Your task to perform on an android device: Search for a small bookcase on Ikea.com Image 0: 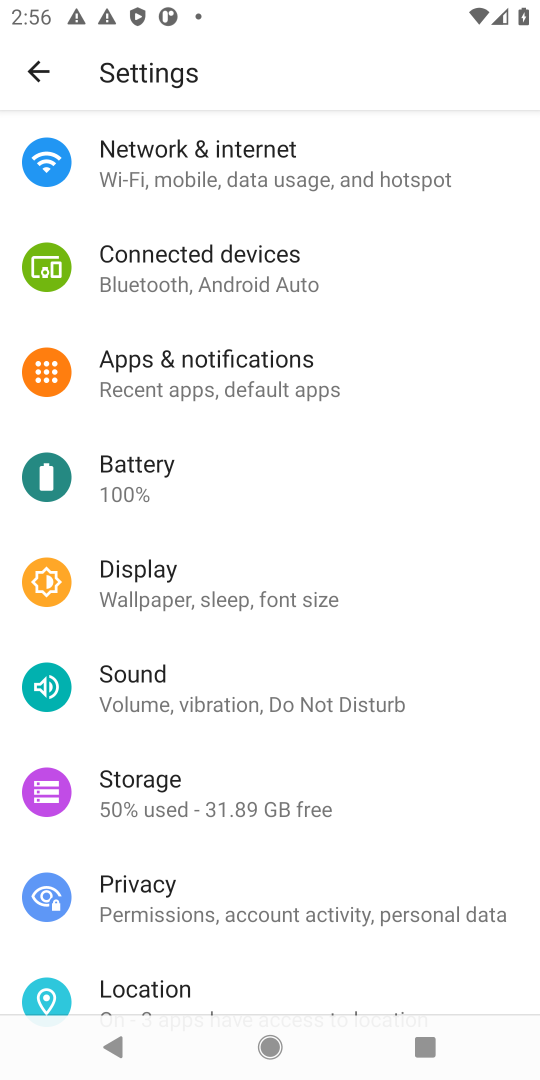
Step 0: press home button
Your task to perform on an android device: Search for a small bookcase on Ikea.com Image 1: 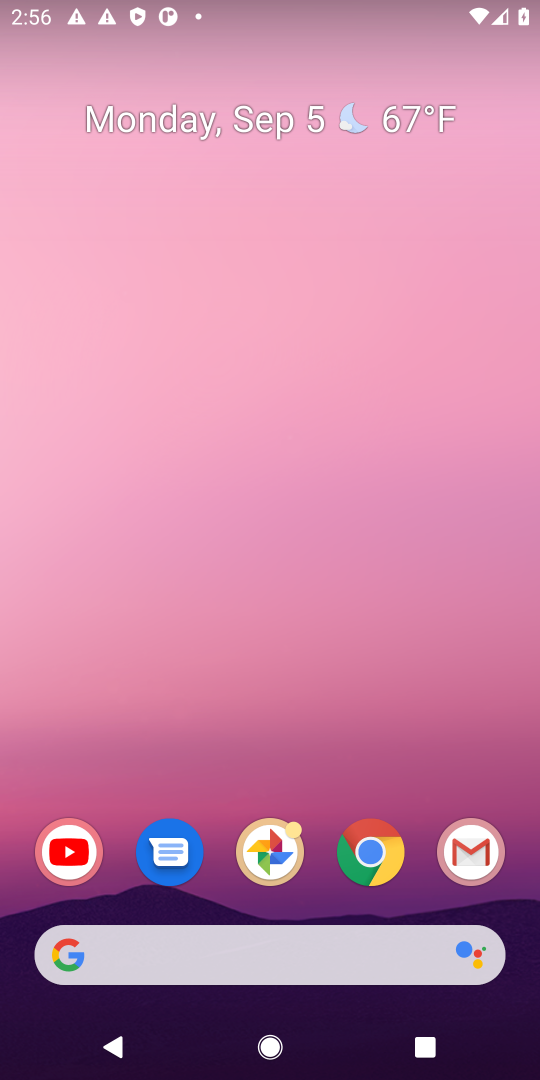
Step 1: click (377, 854)
Your task to perform on an android device: Search for a small bookcase on Ikea.com Image 2: 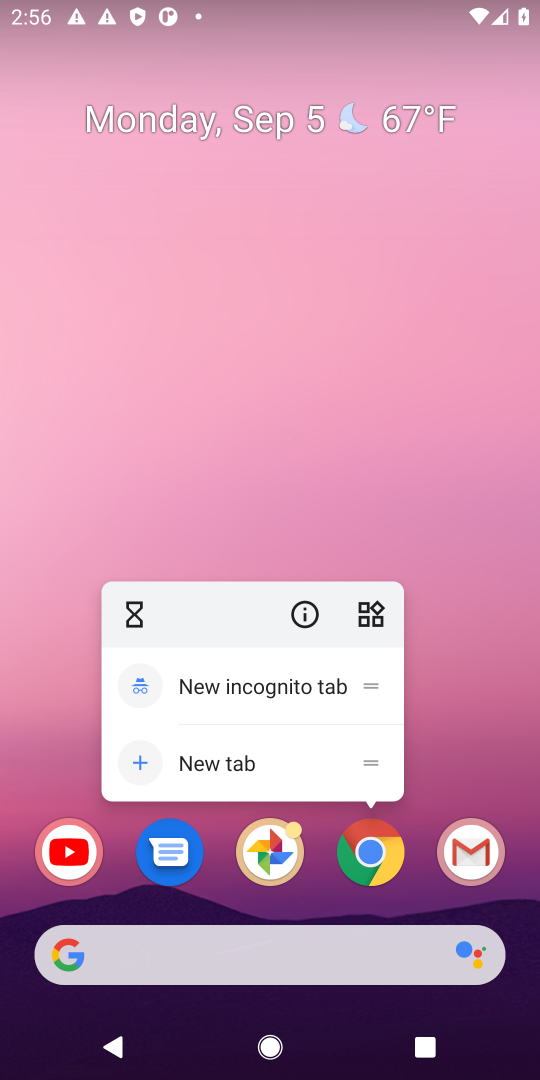
Step 2: click (374, 856)
Your task to perform on an android device: Search for a small bookcase on Ikea.com Image 3: 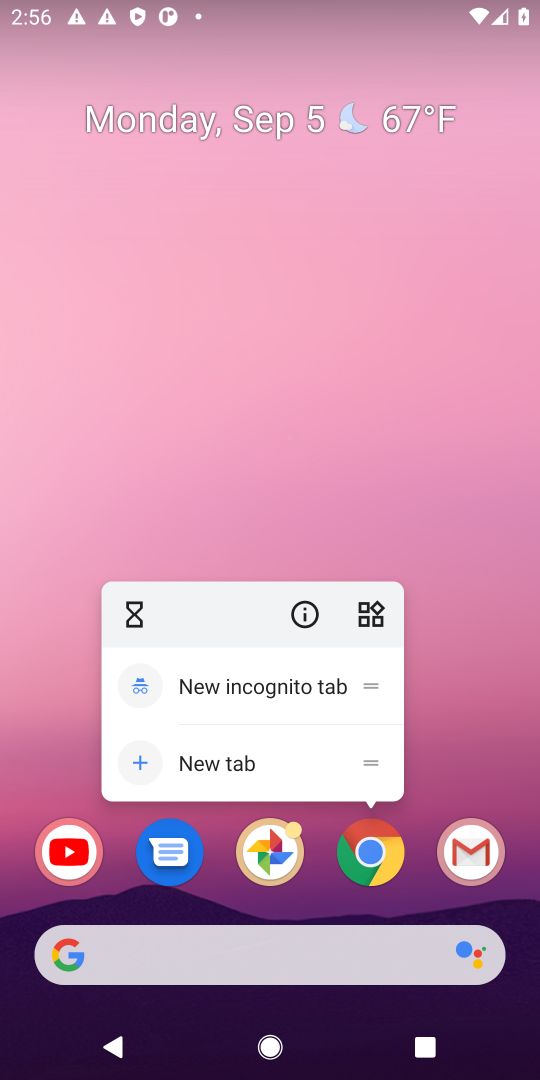
Step 3: click (374, 856)
Your task to perform on an android device: Search for a small bookcase on Ikea.com Image 4: 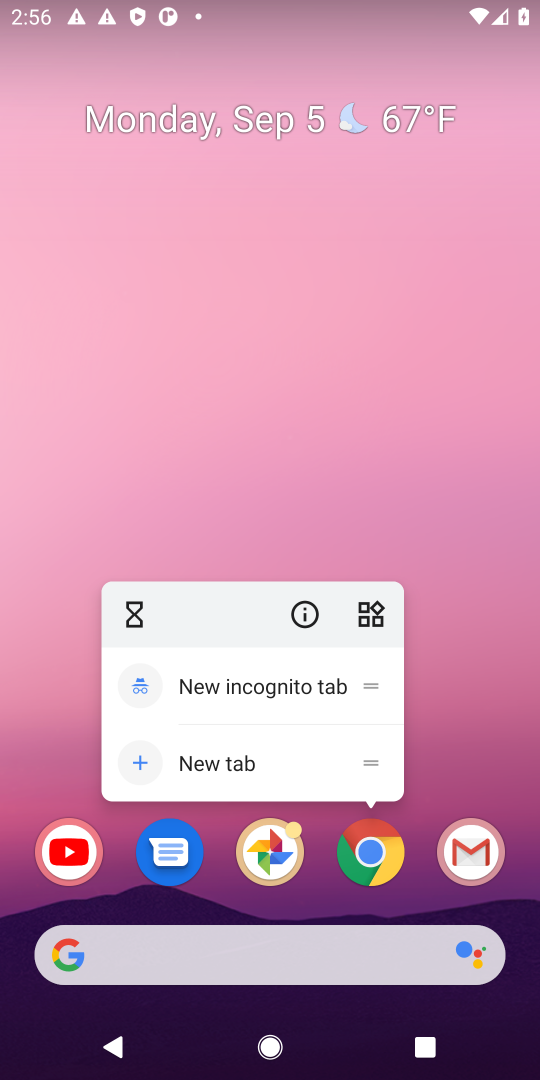
Step 4: click (203, 375)
Your task to perform on an android device: Search for a small bookcase on Ikea.com Image 5: 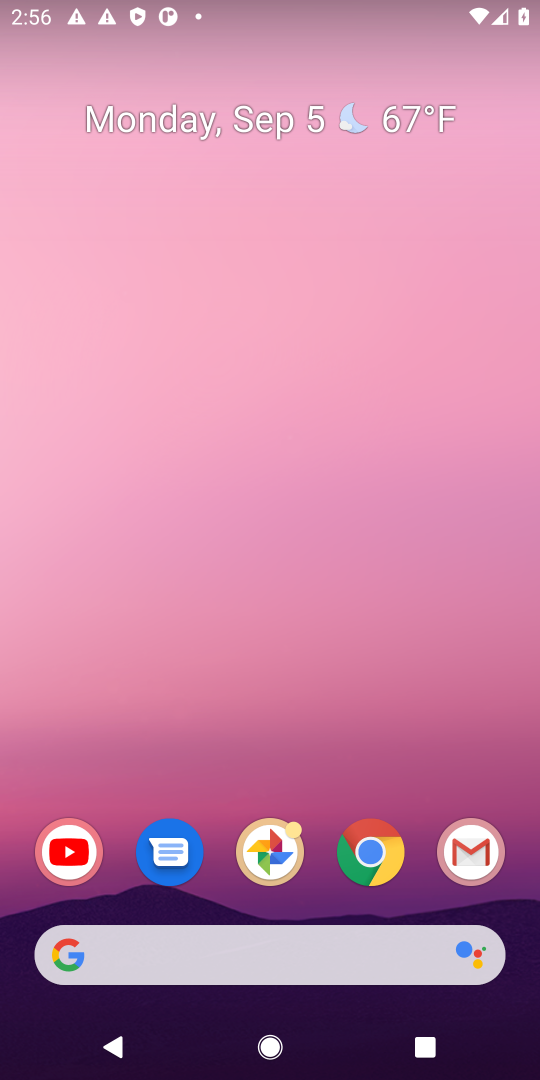
Step 5: click (374, 854)
Your task to perform on an android device: Search for a small bookcase on Ikea.com Image 6: 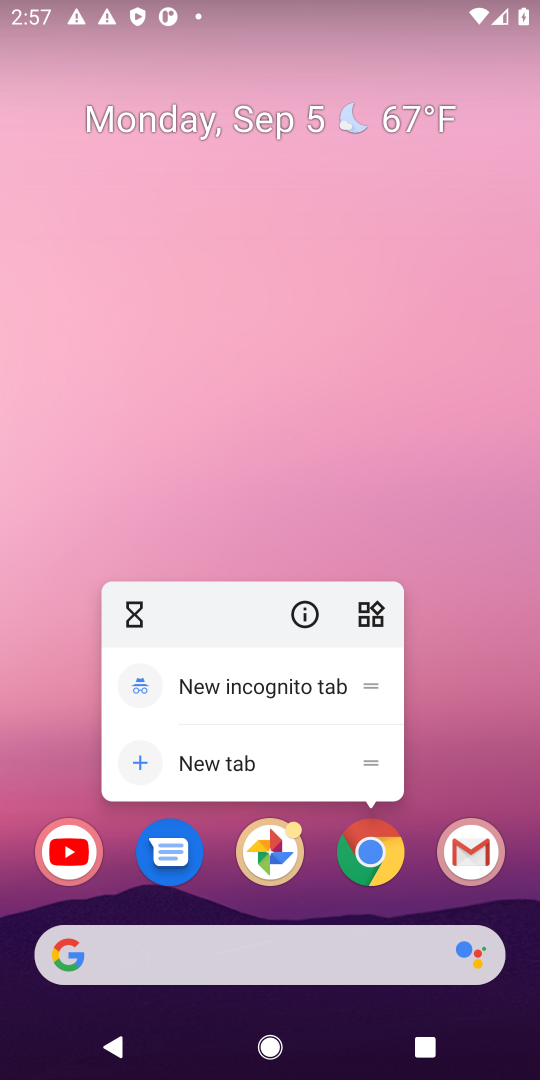
Step 6: click (375, 858)
Your task to perform on an android device: Search for a small bookcase on Ikea.com Image 7: 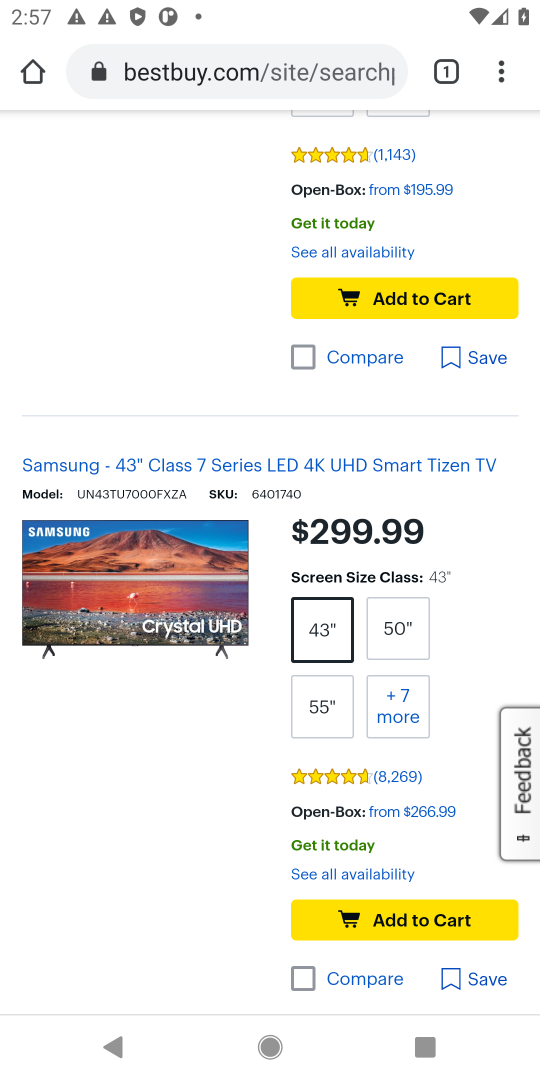
Step 7: click (265, 45)
Your task to perform on an android device: Search for a small bookcase on Ikea.com Image 8: 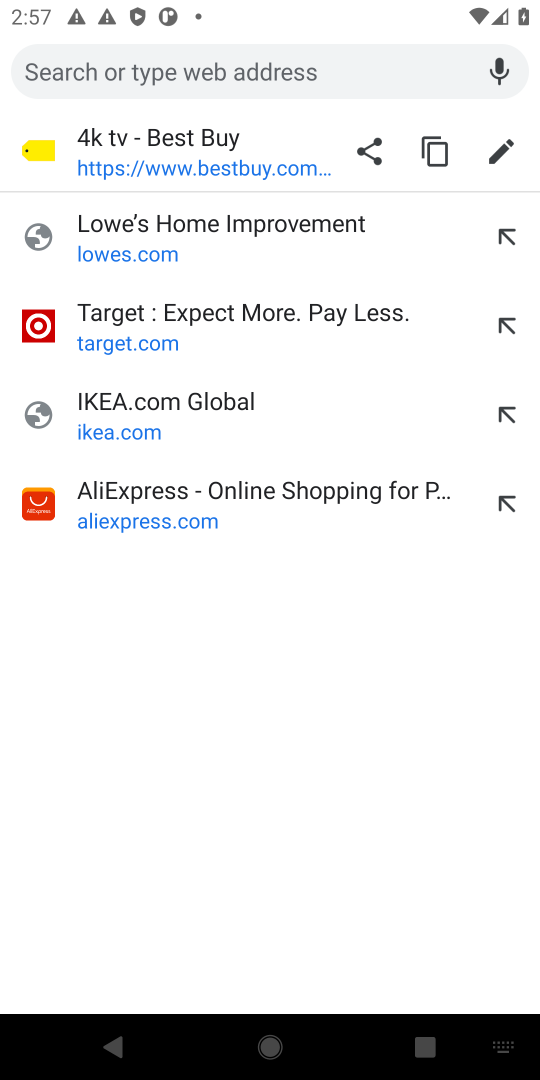
Step 8: type " Ikea.com"
Your task to perform on an android device: Search for a small bookcase on Ikea.com Image 9: 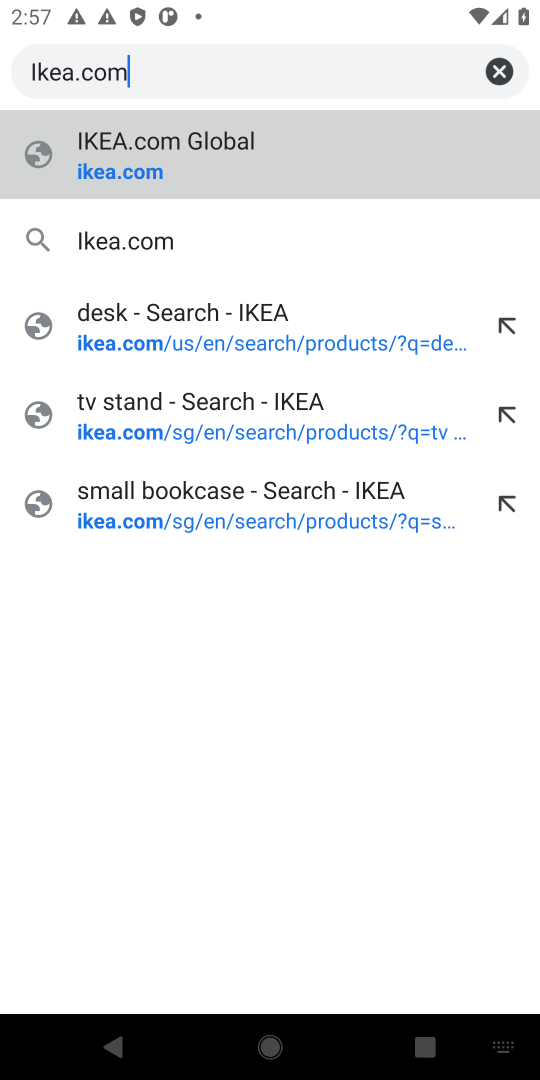
Step 9: click (132, 149)
Your task to perform on an android device: Search for a small bookcase on Ikea.com Image 10: 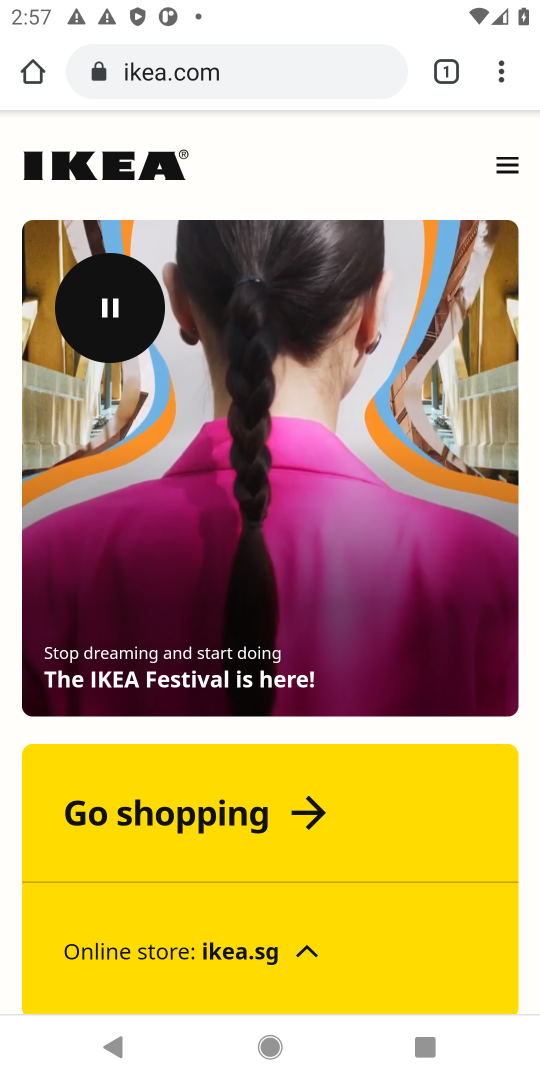
Step 10: click (226, 812)
Your task to perform on an android device: Search for a small bookcase on Ikea.com Image 11: 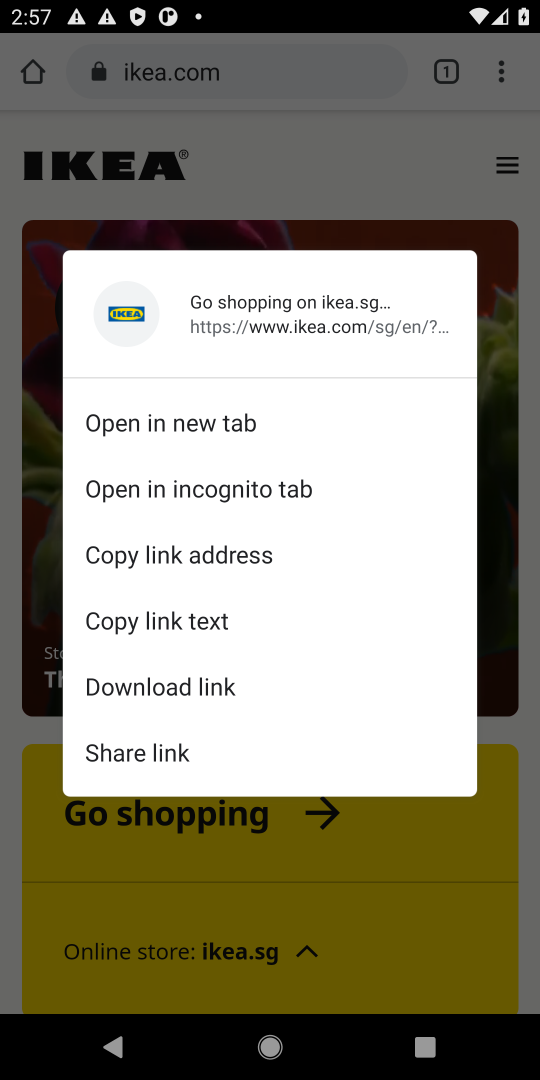
Step 11: click (253, 824)
Your task to perform on an android device: Search for a small bookcase on Ikea.com Image 12: 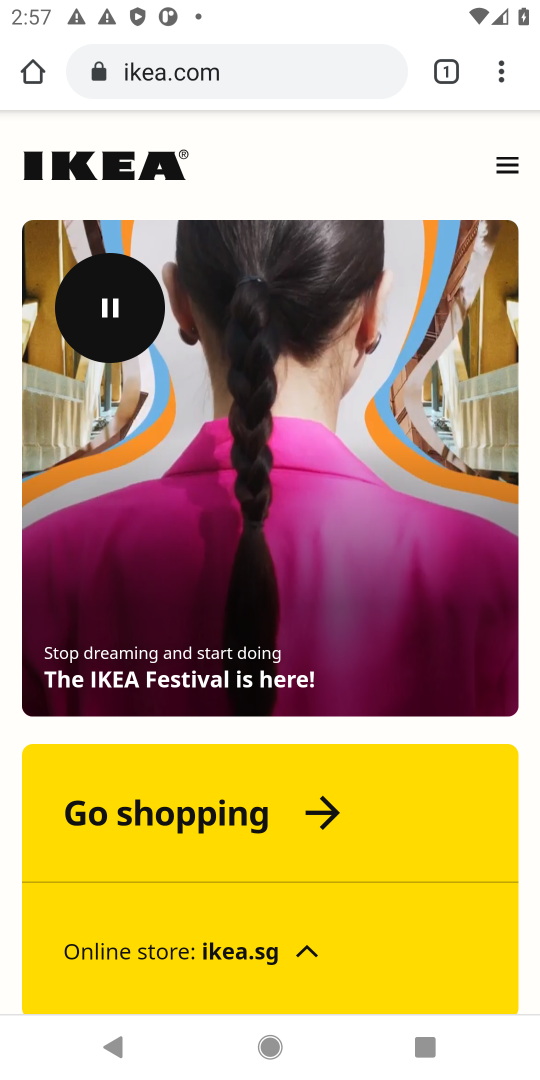
Step 12: click (156, 809)
Your task to perform on an android device: Search for a small bookcase on Ikea.com Image 13: 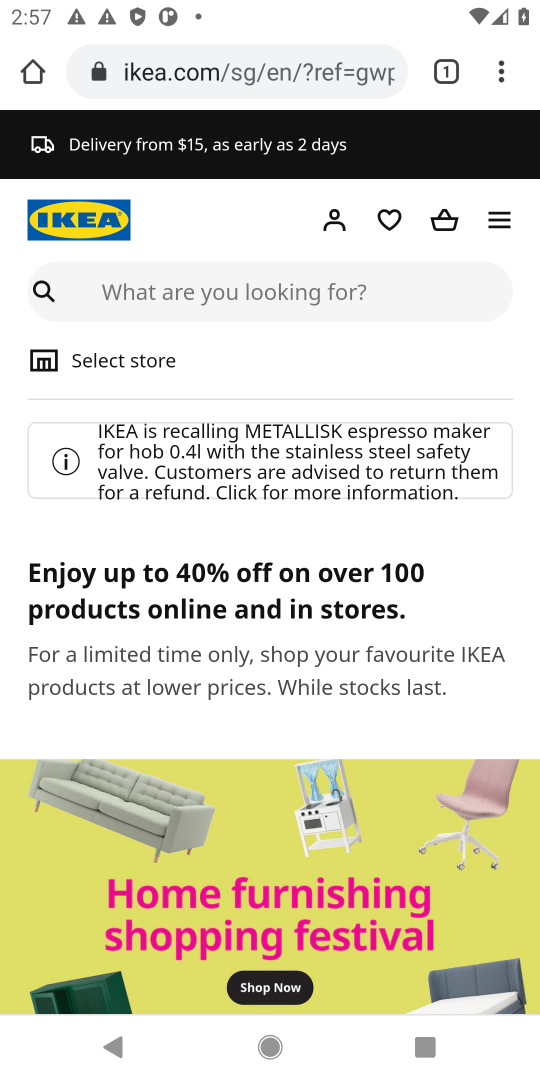
Step 13: click (175, 279)
Your task to perform on an android device: Search for a small bookcase on Ikea.com Image 14: 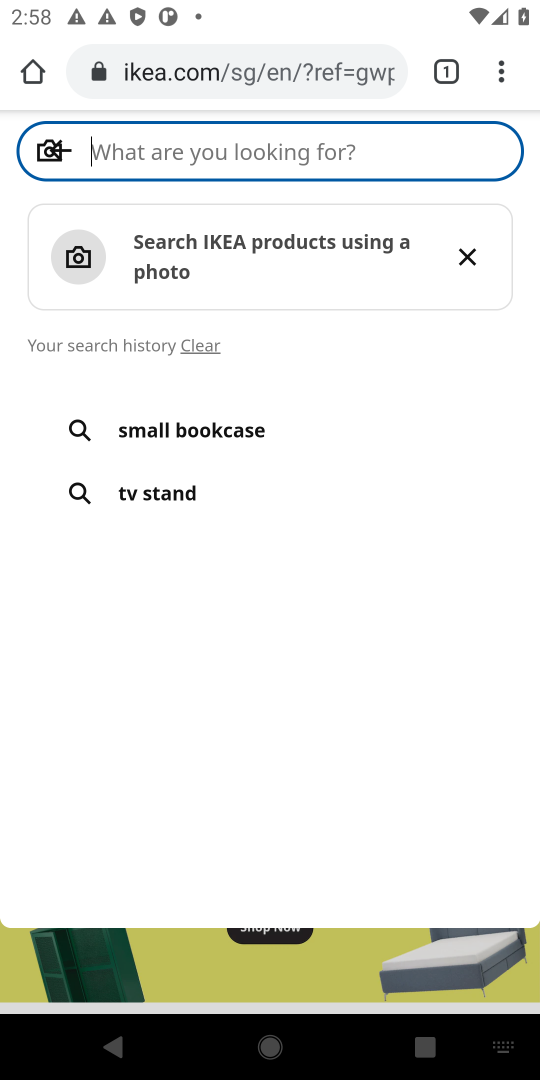
Step 14: type " small bookcase"
Your task to perform on an android device: Search for a small bookcase on Ikea.com Image 15: 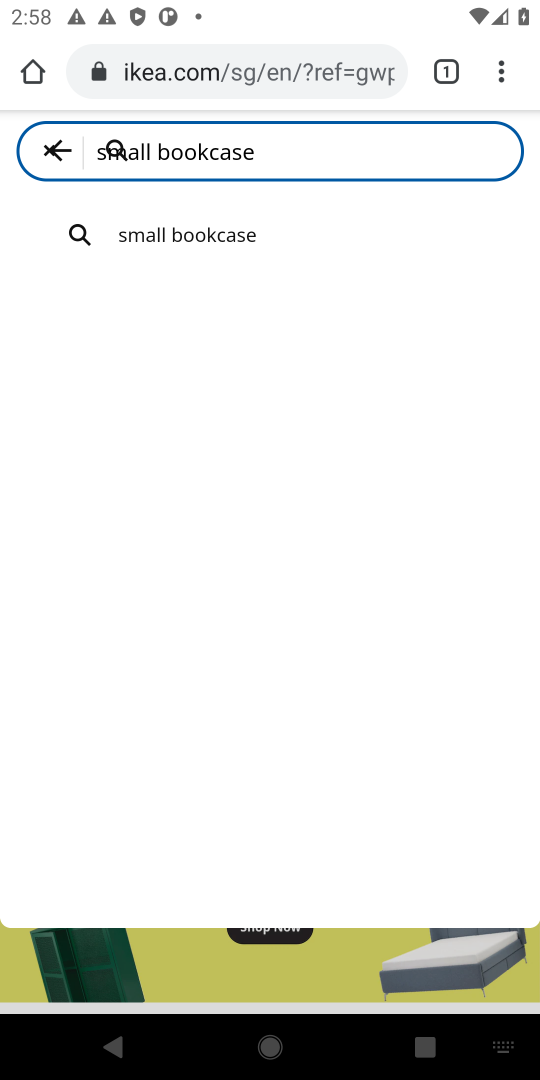
Step 15: click (161, 227)
Your task to perform on an android device: Search for a small bookcase on Ikea.com Image 16: 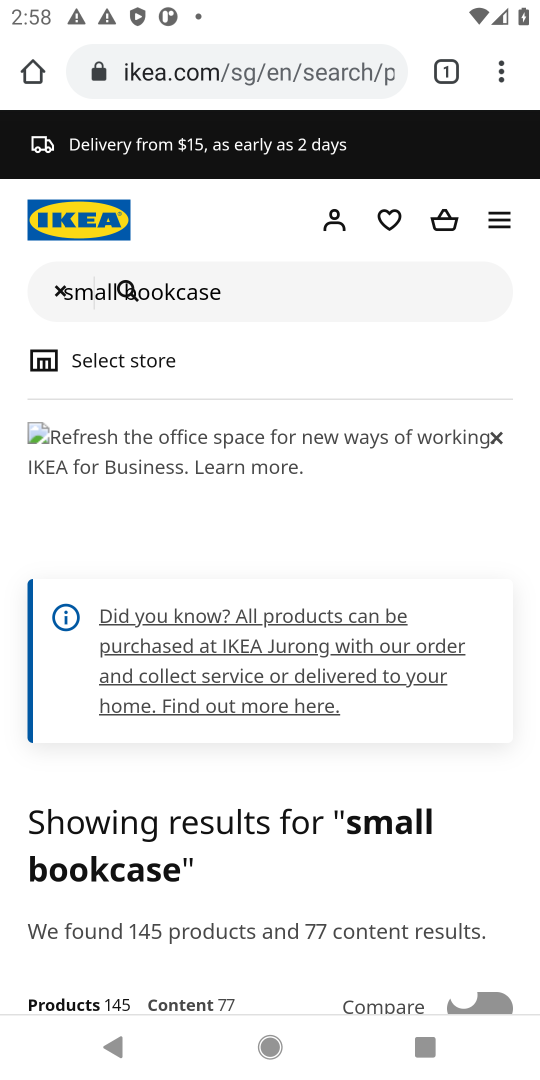
Step 16: click (123, 289)
Your task to perform on an android device: Search for a small bookcase on Ikea.com Image 17: 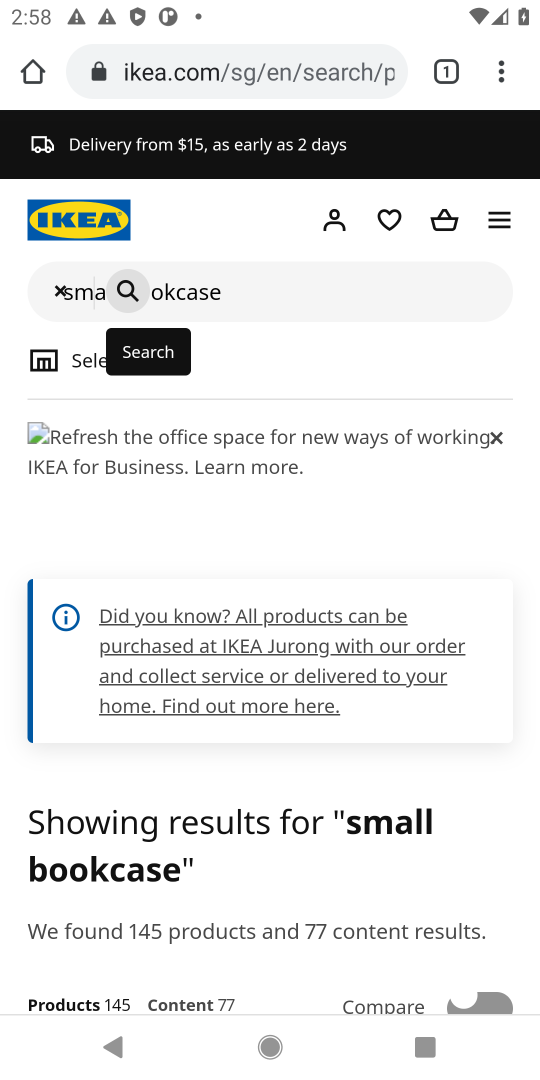
Step 17: task complete